Your task to perform on an android device: open a new tab in the chrome app Image 0: 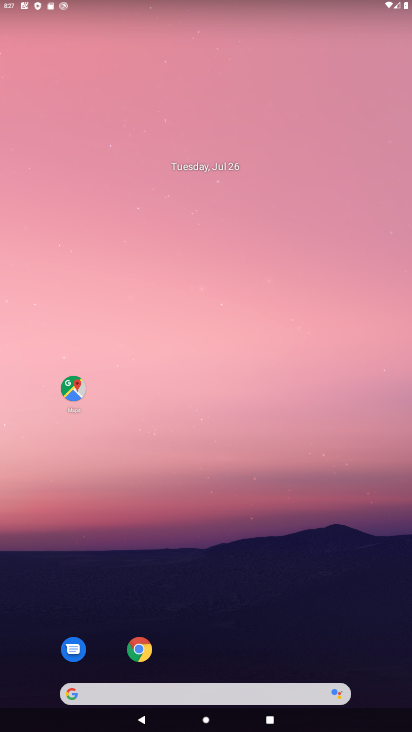
Step 0: click (143, 661)
Your task to perform on an android device: open a new tab in the chrome app Image 1: 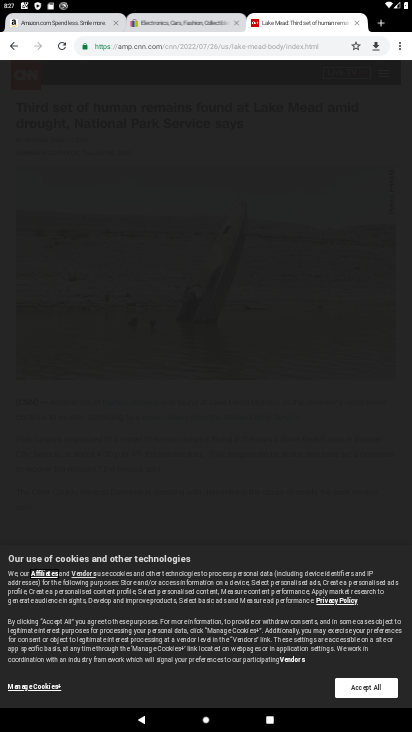
Step 1: click (374, 27)
Your task to perform on an android device: open a new tab in the chrome app Image 2: 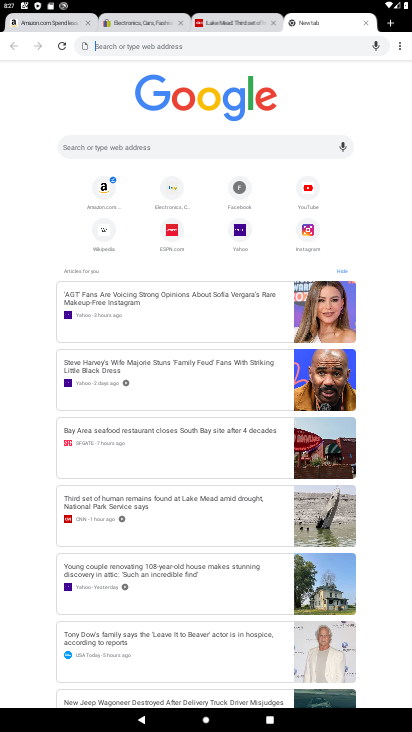
Step 2: task complete